Your task to perform on an android device: Open my contact list Image 0: 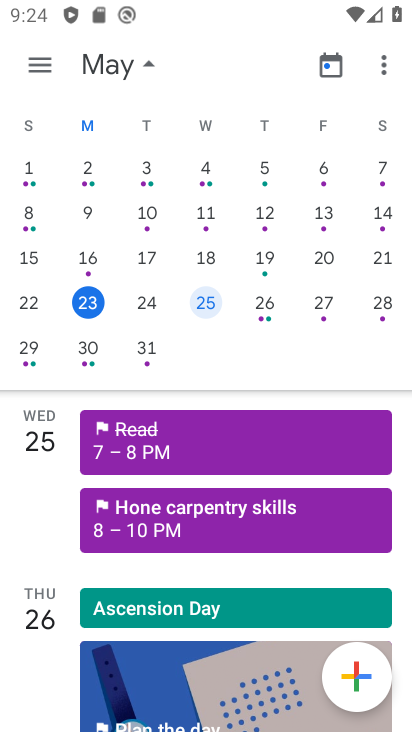
Step 0: press home button
Your task to perform on an android device: Open my contact list Image 1: 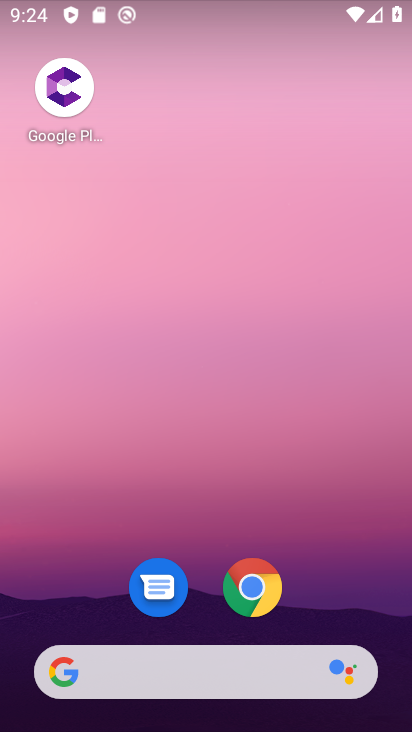
Step 1: drag from (351, 485) to (306, 65)
Your task to perform on an android device: Open my contact list Image 2: 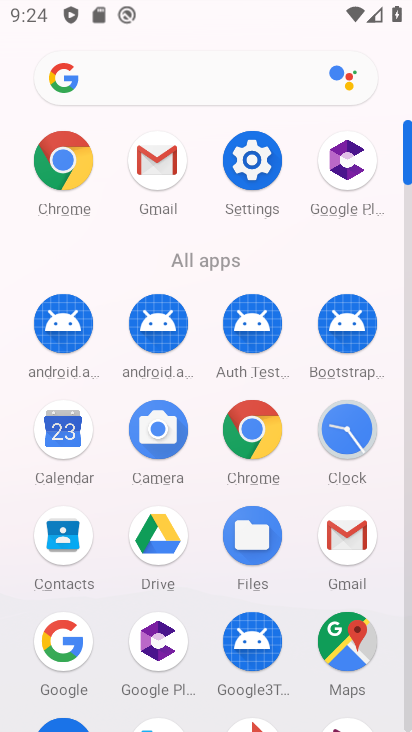
Step 2: drag from (384, 595) to (286, 258)
Your task to perform on an android device: Open my contact list Image 3: 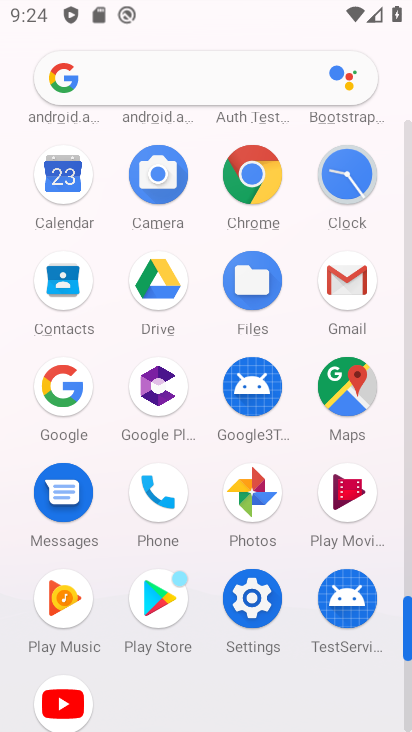
Step 3: click (153, 496)
Your task to perform on an android device: Open my contact list Image 4: 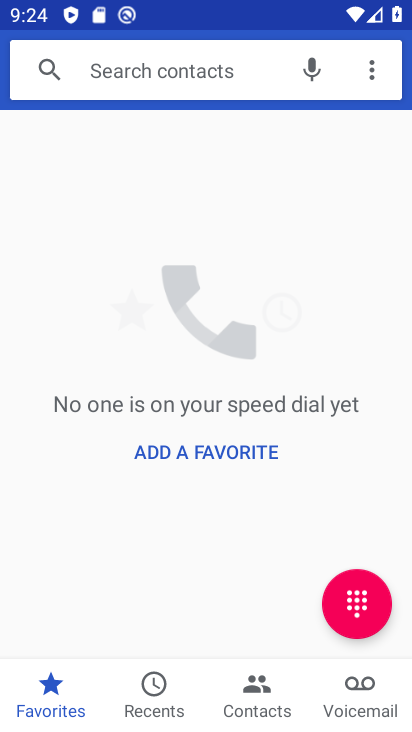
Step 4: click (272, 680)
Your task to perform on an android device: Open my contact list Image 5: 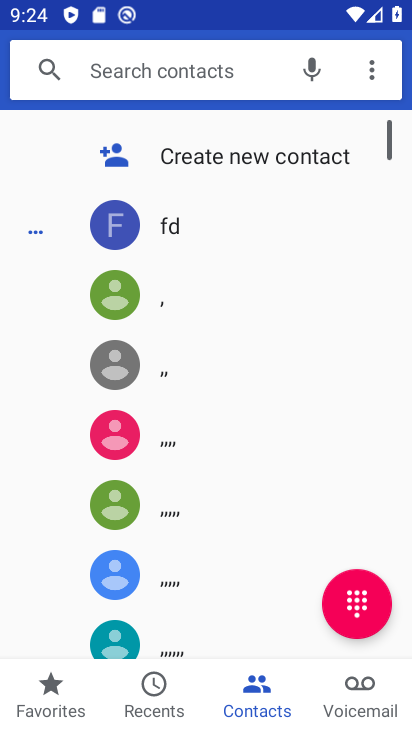
Step 5: task complete